Your task to perform on an android device: turn vacation reply on in the gmail app Image 0: 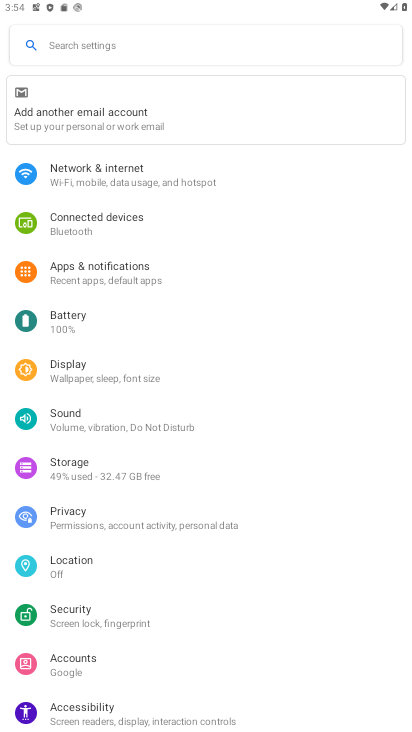
Step 0: press home button
Your task to perform on an android device: turn vacation reply on in the gmail app Image 1: 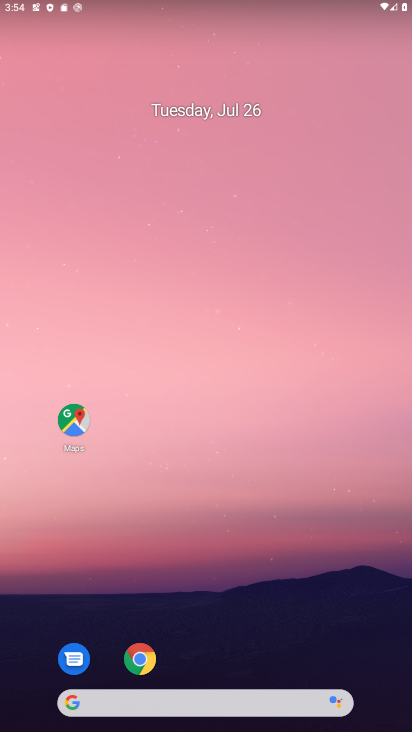
Step 1: drag from (250, 599) to (210, 149)
Your task to perform on an android device: turn vacation reply on in the gmail app Image 2: 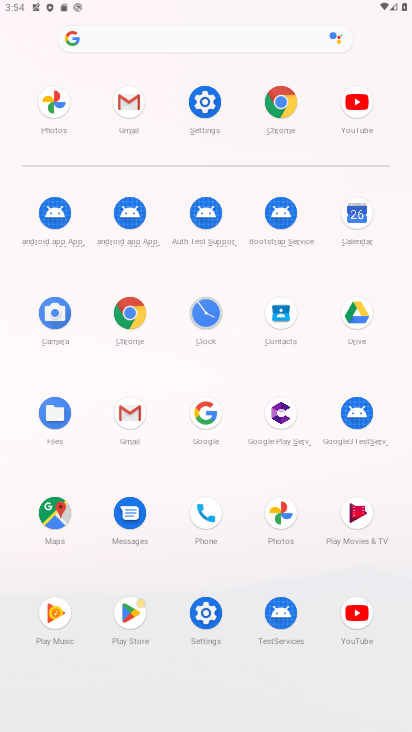
Step 2: click (123, 423)
Your task to perform on an android device: turn vacation reply on in the gmail app Image 3: 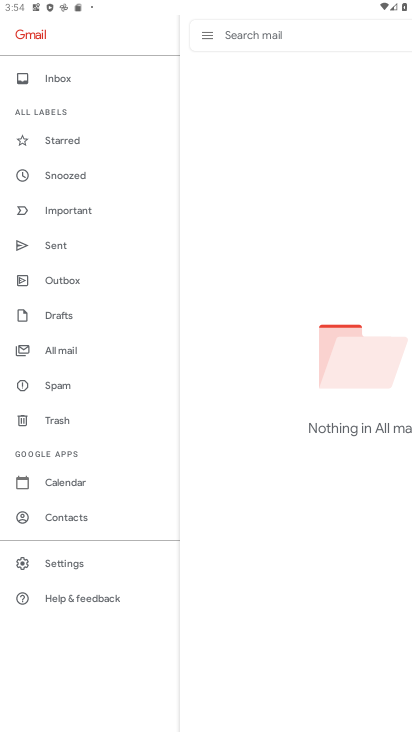
Step 3: click (54, 565)
Your task to perform on an android device: turn vacation reply on in the gmail app Image 4: 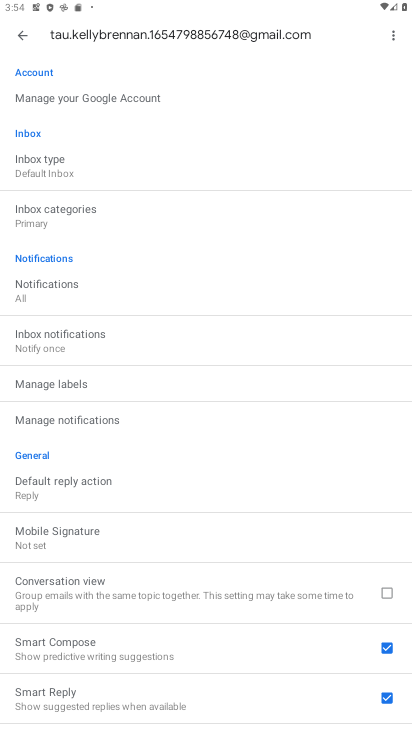
Step 4: drag from (115, 672) to (115, 297)
Your task to perform on an android device: turn vacation reply on in the gmail app Image 5: 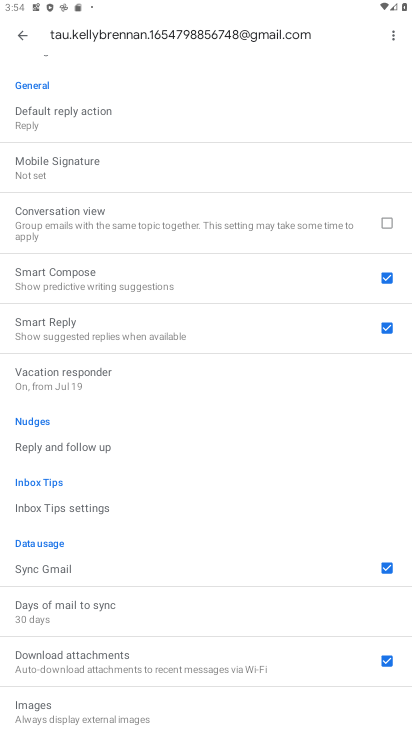
Step 5: click (126, 375)
Your task to perform on an android device: turn vacation reply on in the gmail app Image 6: 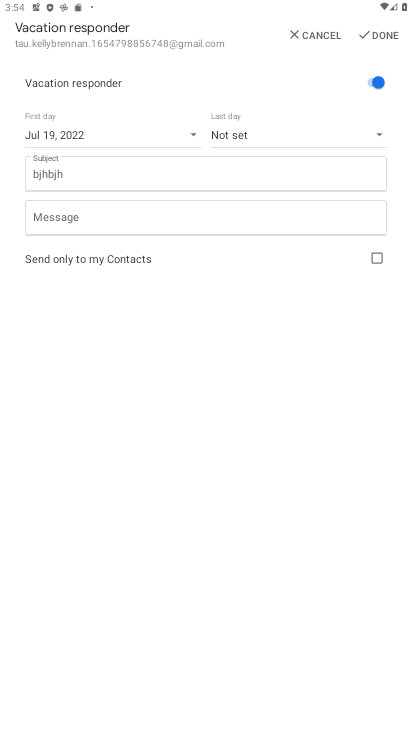
Step 6: click (379, 36)
Your task to perform on an android device: turn vacation reply on in the gmail app Image 7: 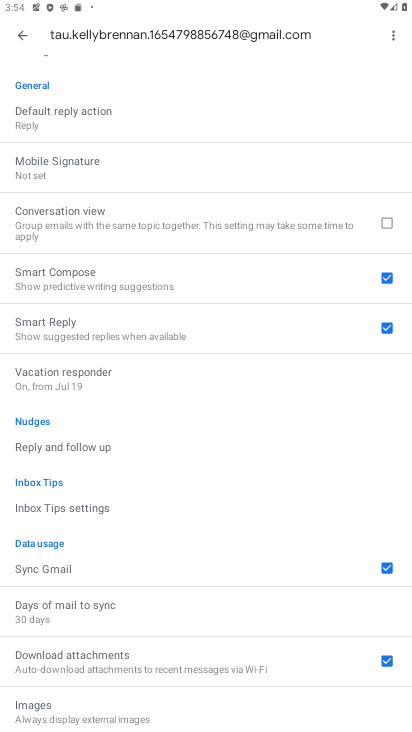
Step 7: task complete